Your task to perform on an android device: turn pop-ups on in chrome Image 0: 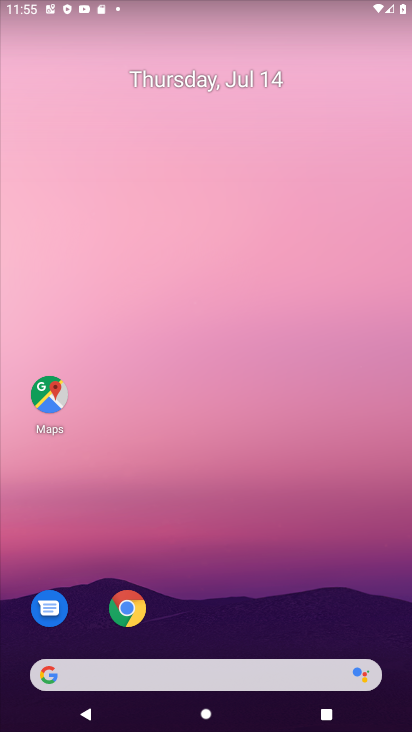
Step 0: drag from (330, 688) to (212, 196)
Your task to perform on an android device: turn pop-ups on in chrome Image 1: 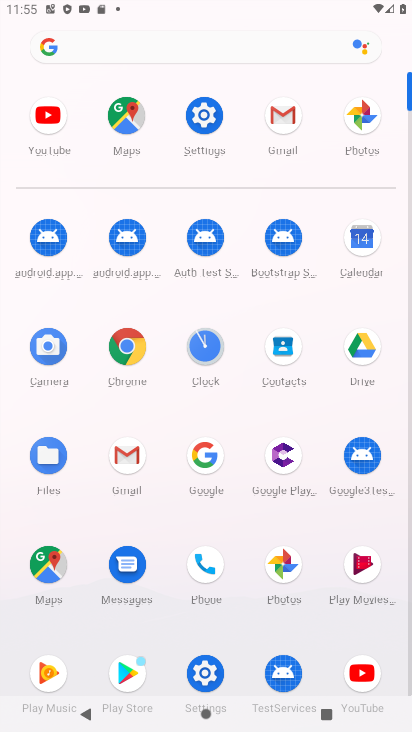
Step 1: click (130, 358)
Your task to perform on an android device: turn pop-ups on in chrome Image 2: 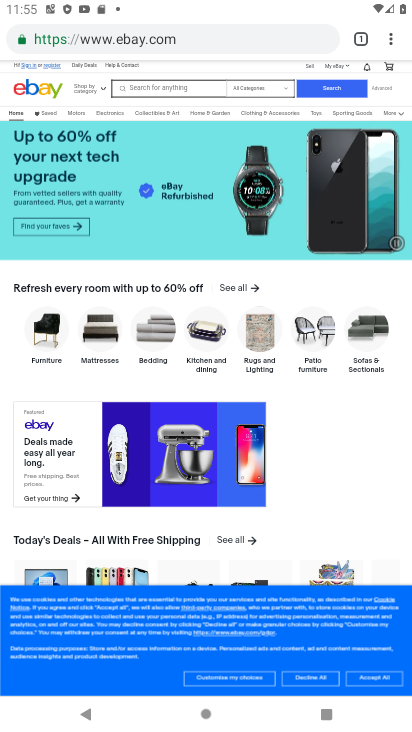
Step 2: click (393, 36)
Your task to perform on an android device: turn pop-ups on in chrome Image 3: 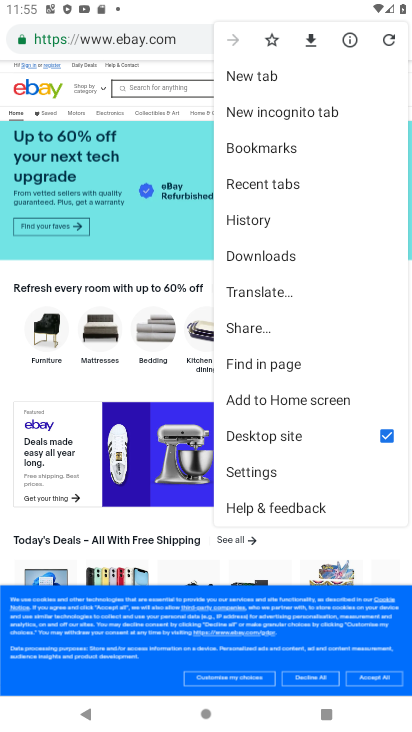
Step 3: click (279, 467)
Your task to perform on an android device: turn pop-ups on in chrome Image 4: 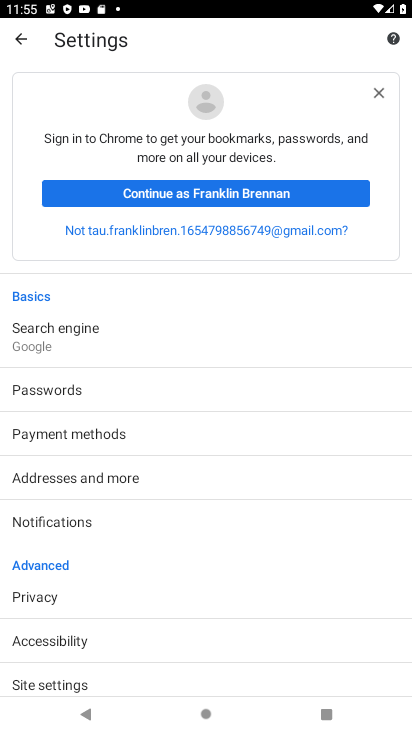
Step 4: drag from (250, 599) to (272, 214)
Your task to perform on an android device: turn pop-ups on in chrome Image 5: 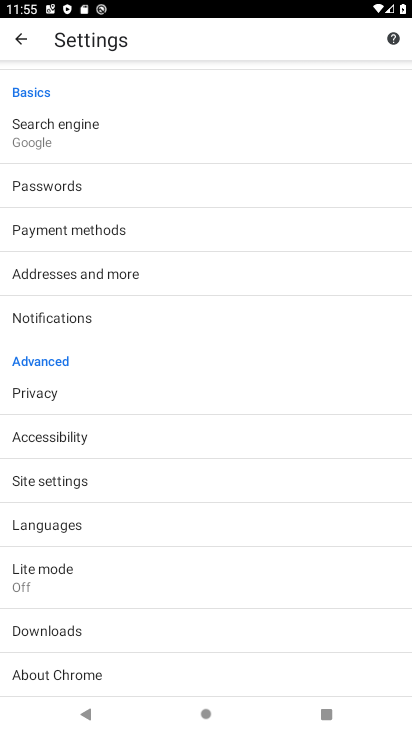
Step 5: click (109, 483)
Your task to perform on an android device: turn pop-ups on in chrome Image 6: 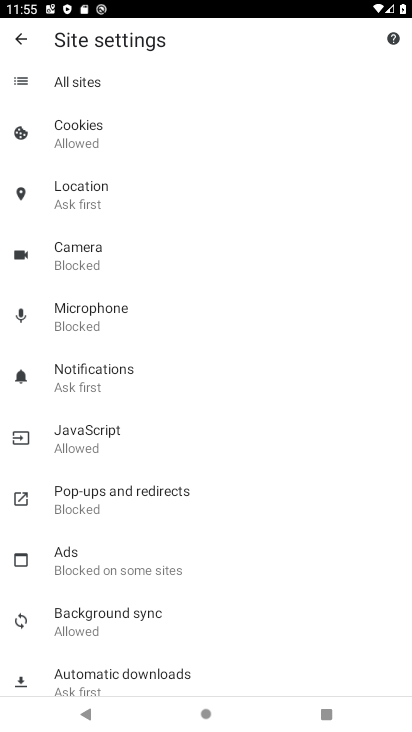
Step 6: click (138, 498)
Your task to perform on an android device: turn pop-ups on in chrome Image 7: 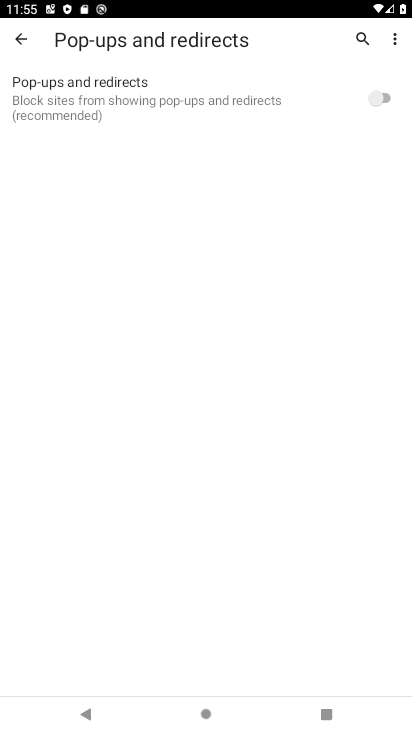
Step 7: click (382, 102)
Your task to perform on an android device: turn pop-ups on in chrome Image 8: 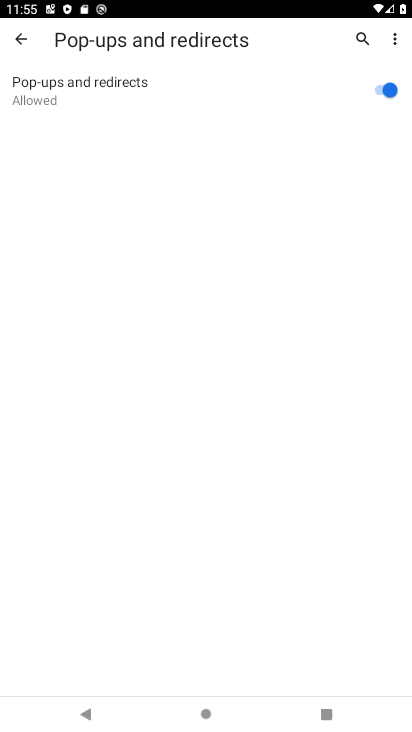
Step 8: task complete